Your task to perform on an android device: move a message to another label in the gmail app Image 0: 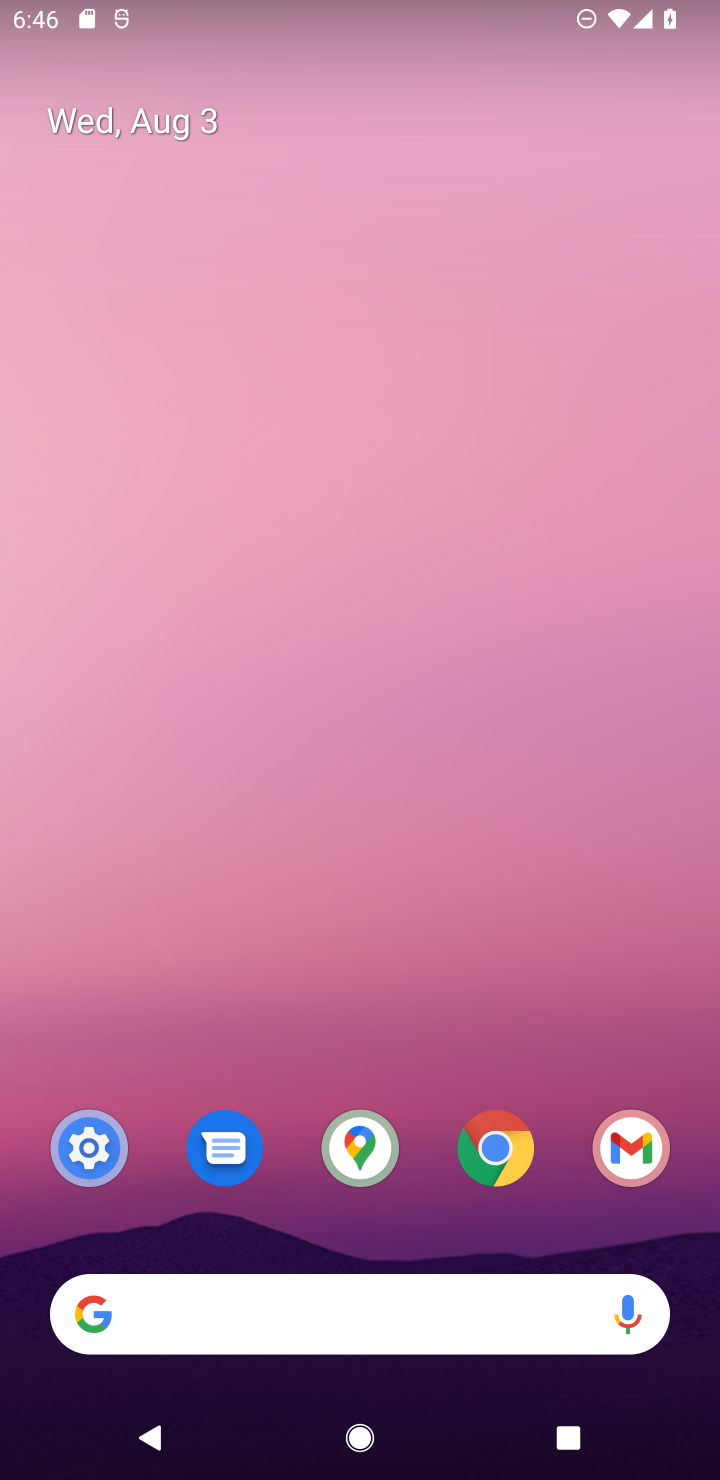
Step 0: click (649, 1150)
Your task to perform on an android device: move a message to another label in the gmail app Image 1: 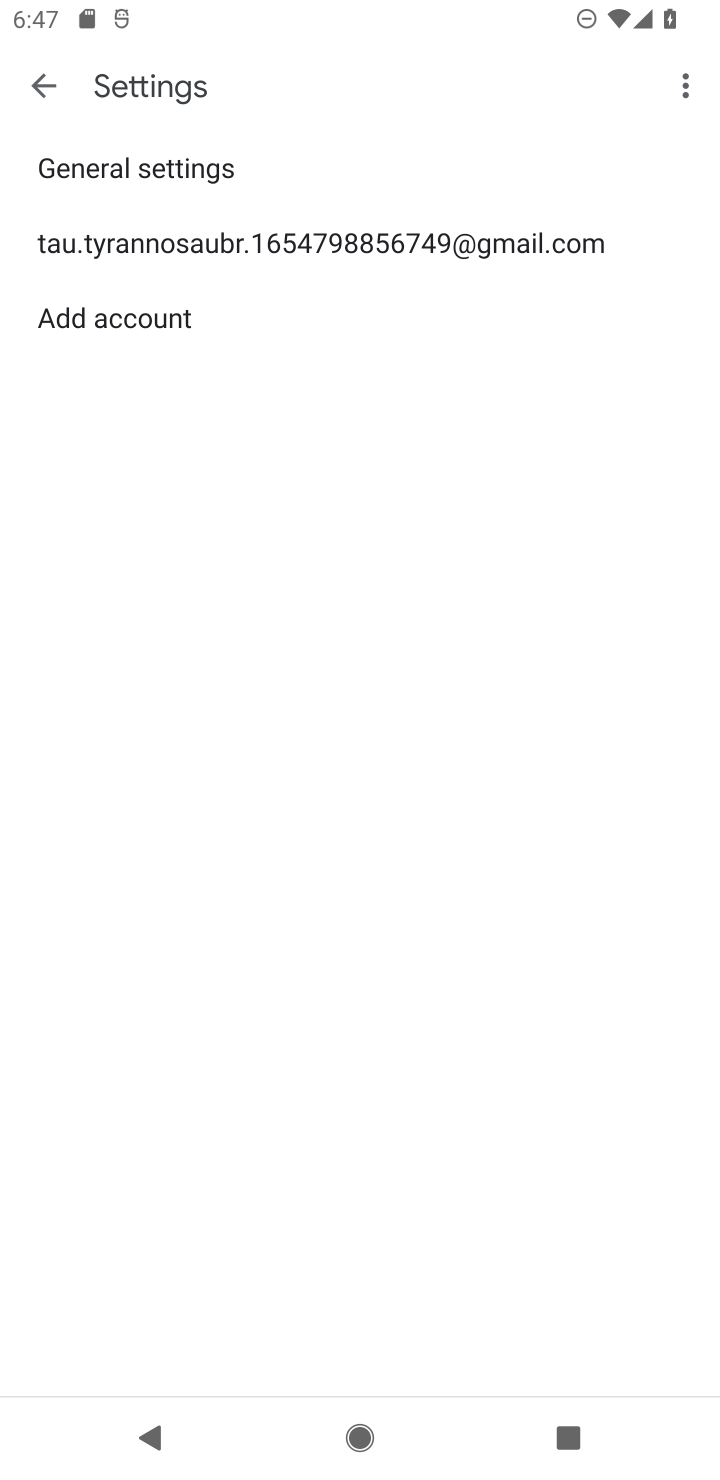
Step 1: click (31, 85)
Your task to perform on an android device: move a message to another label in the gmail app Image 2: 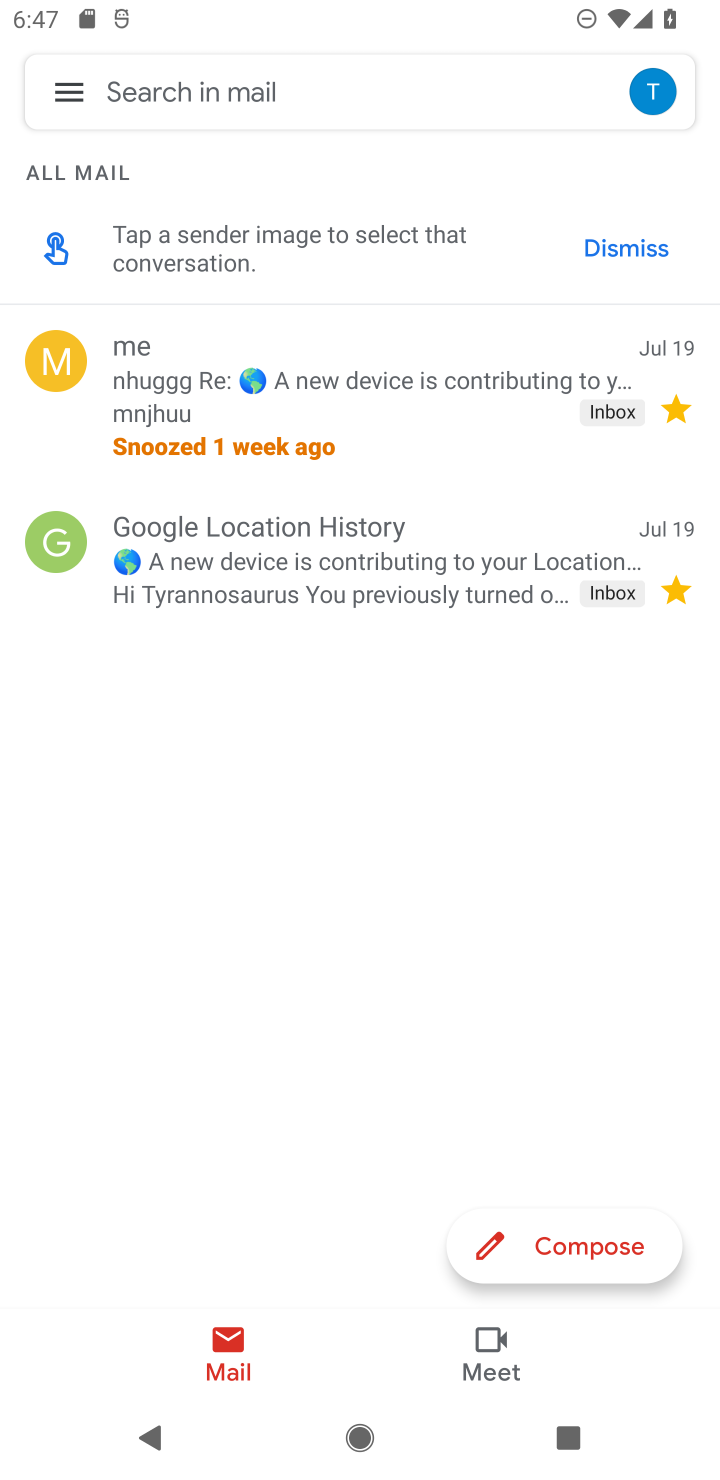
Step 2: click (249, 377)
Your task to perform on an android device: move a message to another label in the gmail app Image 3: 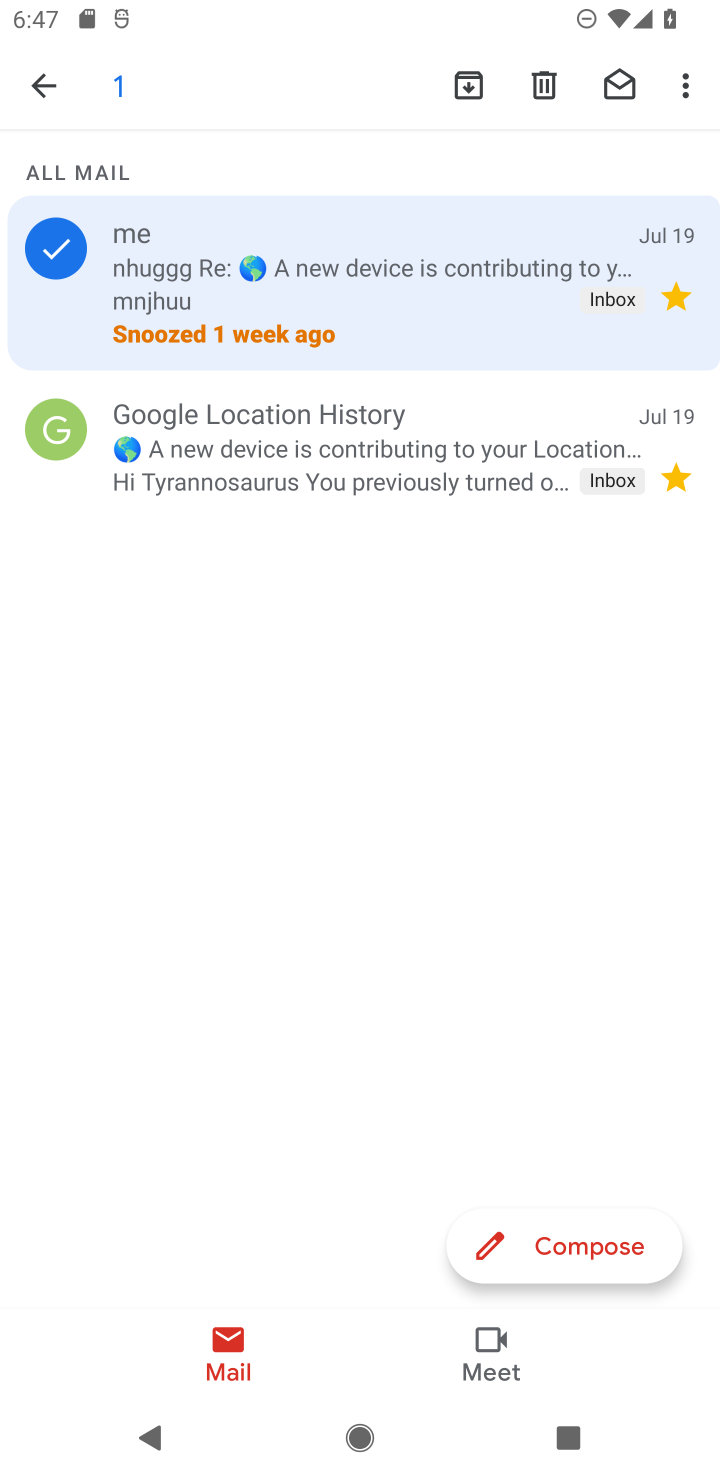
Step 3: click (682, 80)
Your task to perform on an android device: move a message to another label in the gmail app Image 4: 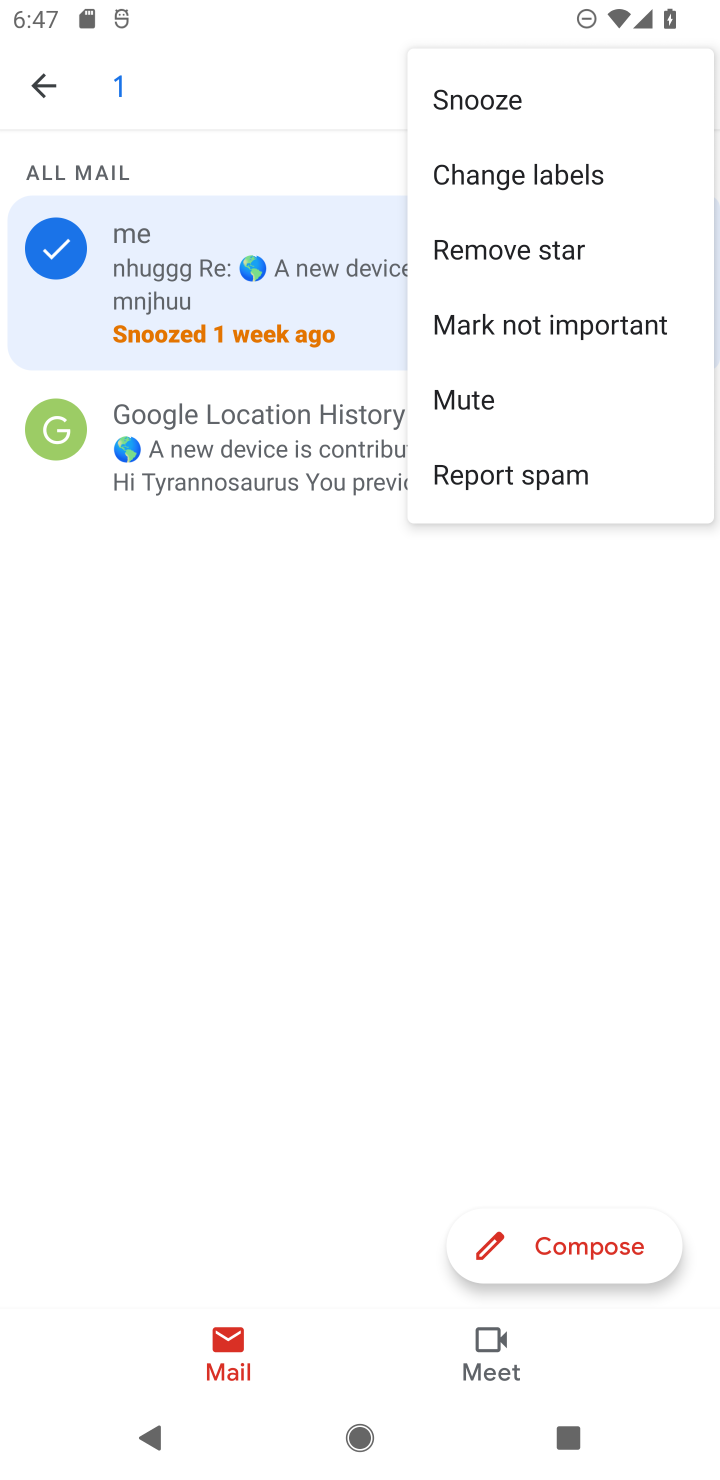
Step 4: click (497, 185)
Your task to perform on an android device: move a message to another label in the gmail app Image 5: 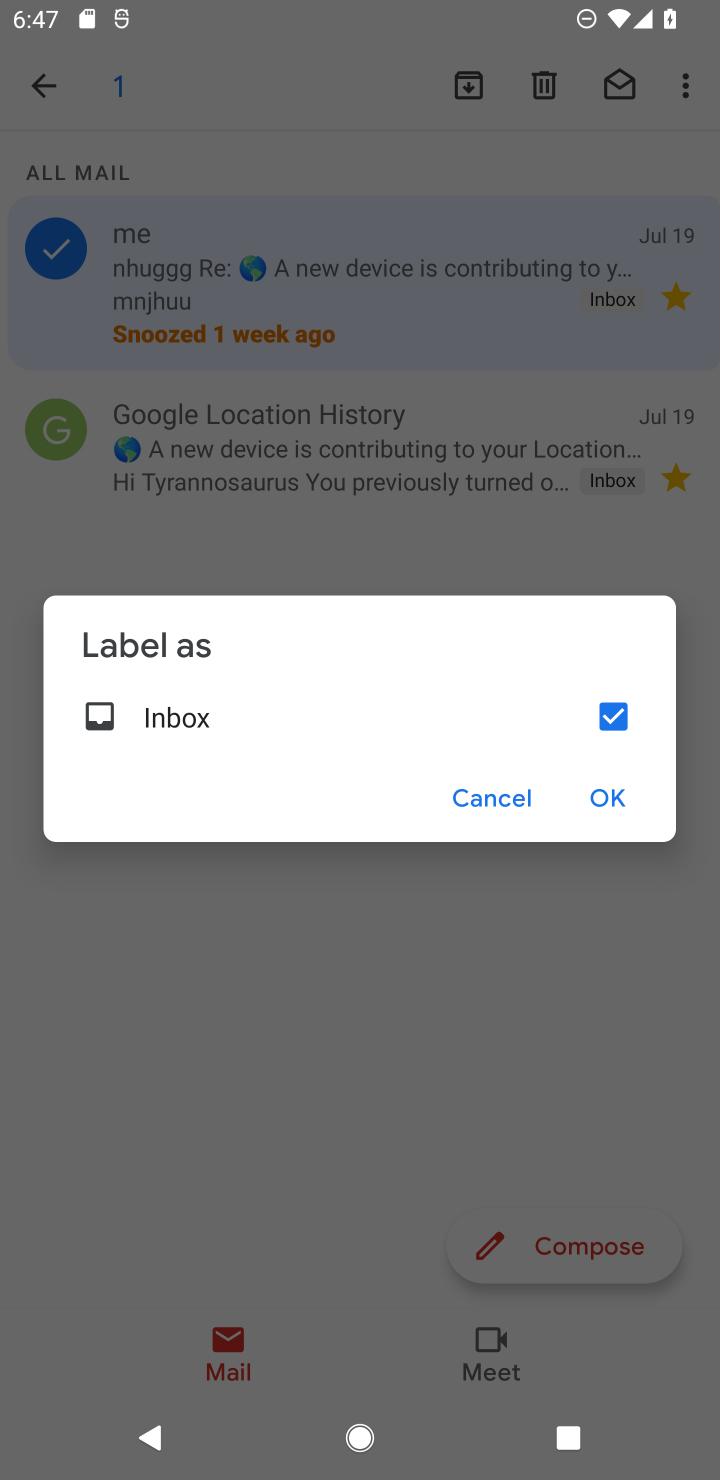
Step 5: click (605, 721)
Your task to perform on an android device: move a message to another label in the gmail app Image 6: 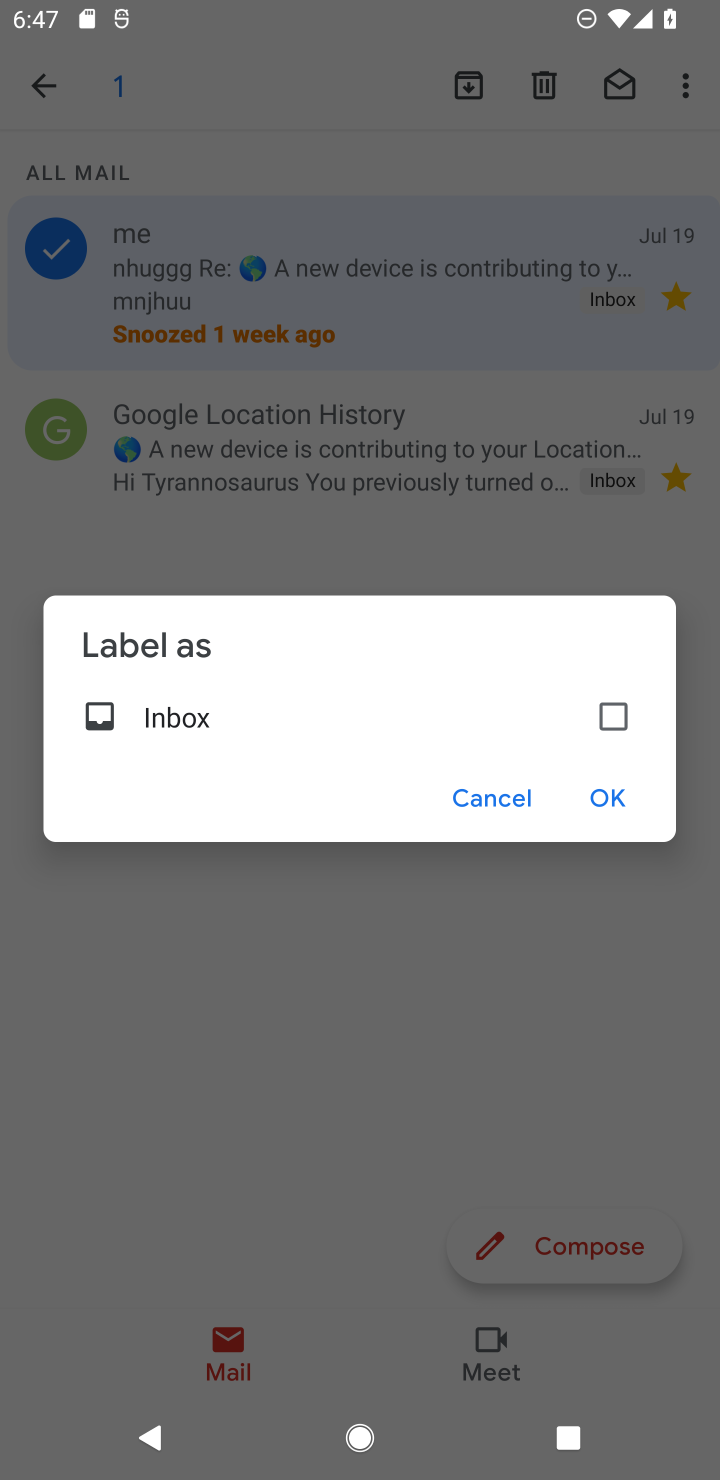
Step 6: click (599, 794)
Your task to perform on an android device: move a message to another label in the gmail app Image 7: 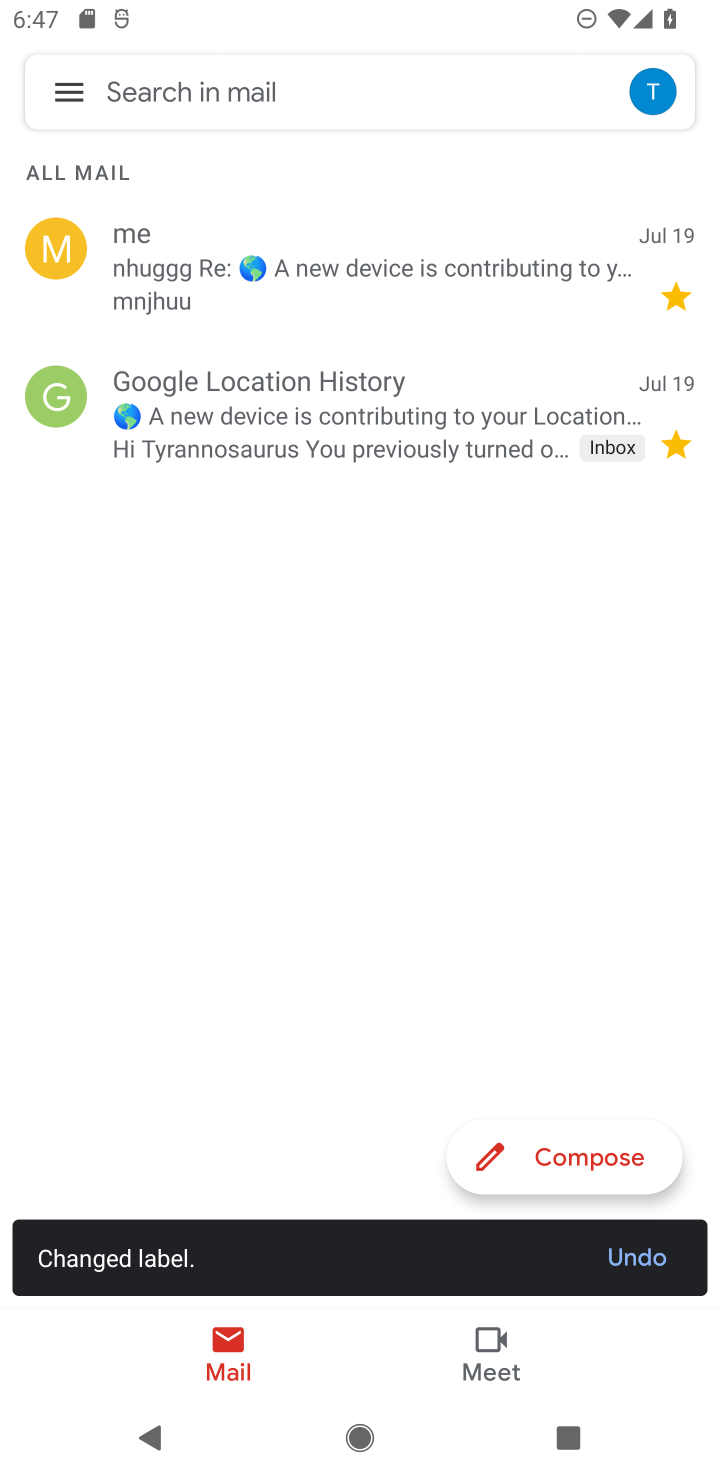
Step 7: task complete